Your task to perform on an android device: check battery use Image 0: 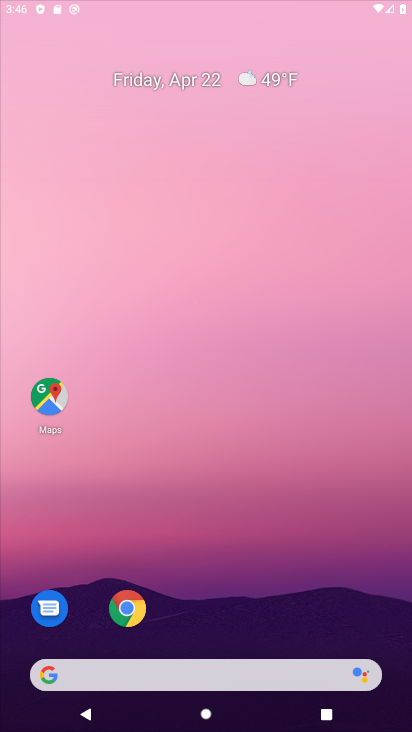
Step 0: drag from (267, 603) to (271, 476)
Your task to perform on an android device: check battery use Image 1: 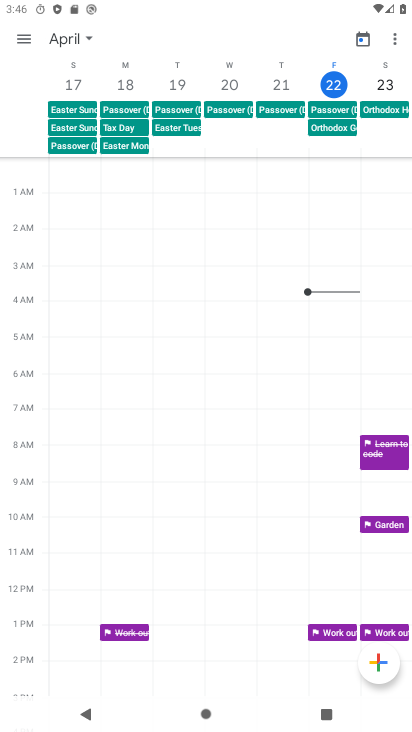
Step 1: press home button
Your task to perform on an android device: check battery use Image 2: 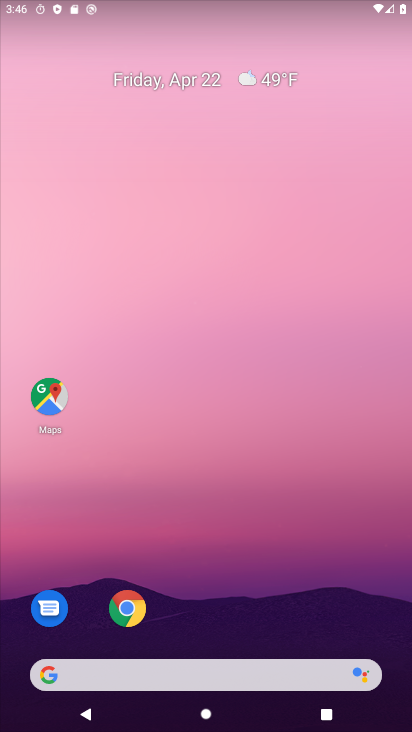
Step 2: drag from (204, 436) to (203, 30)
Your task to perform on an android device: check battery use Image 3: 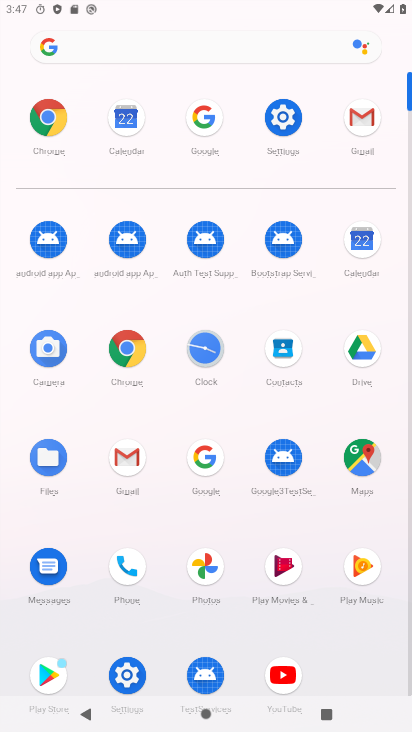
Step 3: click (281, 110)
Your task to perform on an android device: check battery use Image 4: 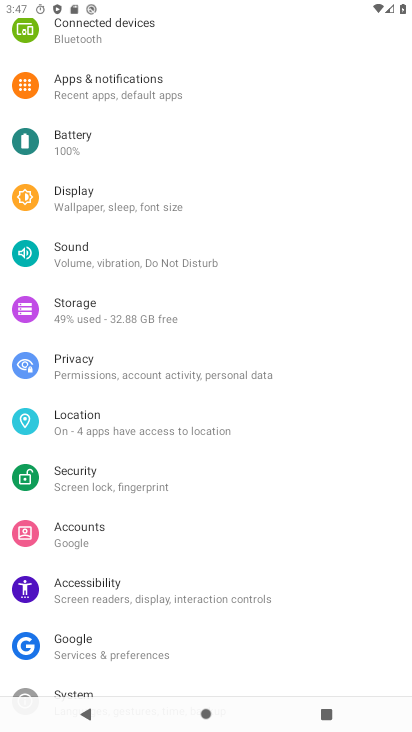
Step 4: click (83, 140)
Your task to perform on an android device: check battery use Image 5: 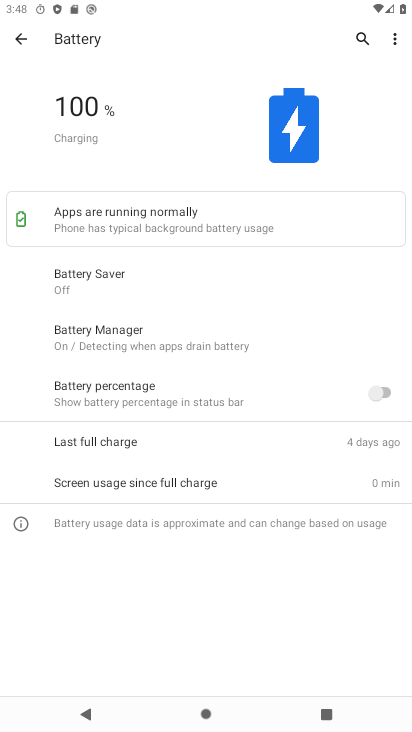
Step 5: click (394, 33)
Your task to perform on an android device: check battery use Image 6: 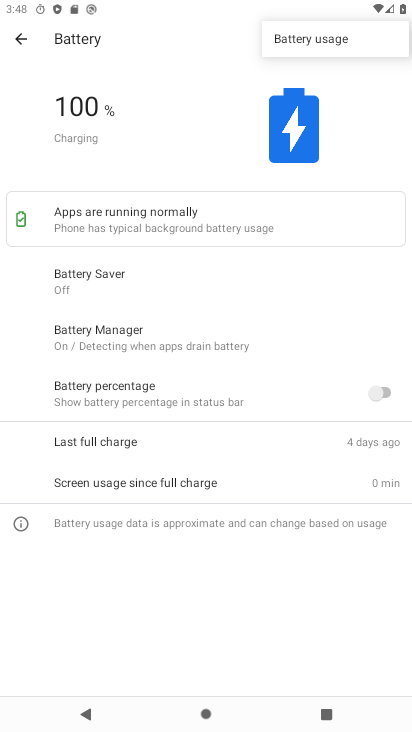
Step 6: click (278, 43)
Your task to perform on an android device: check battery use Image 7: 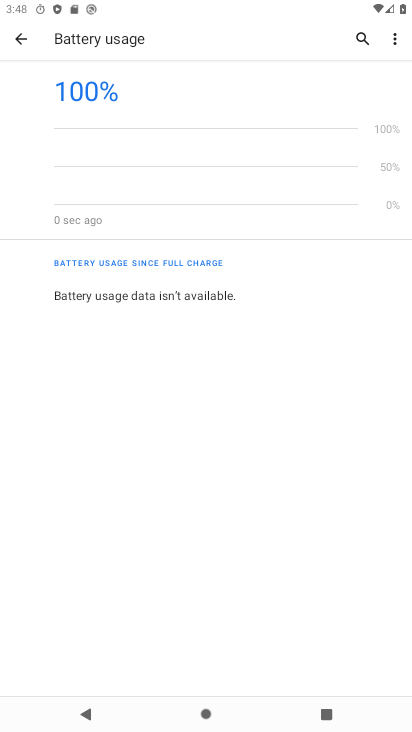
Step 7: task complete